Your task to perform on an android device: turn off javascript in the chrome app Image 0: 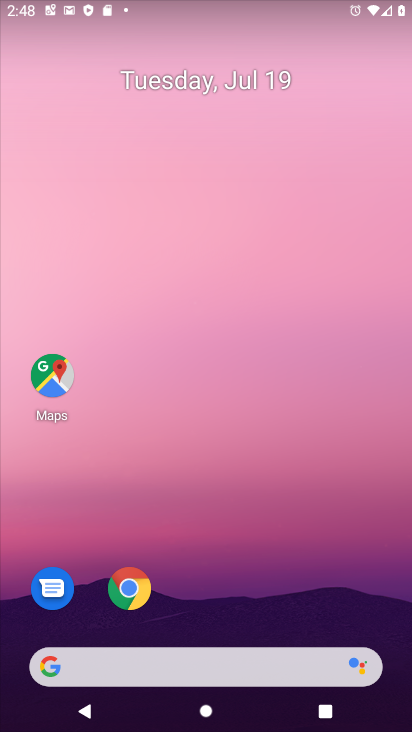
Step 0: drag from (390, 653) to (190, 39)
Your task to perform on an android device: turn off javascript in the chrome app Image 1: 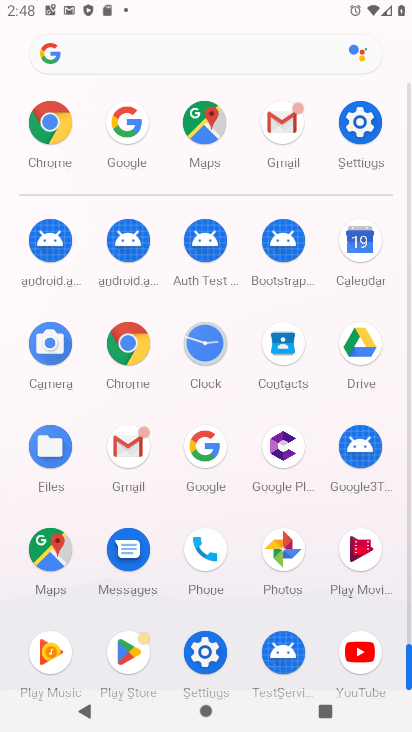
Step 1: click (46, 136)
Your task to perform on an android device: turn off javascript in the chrome app Image 2: 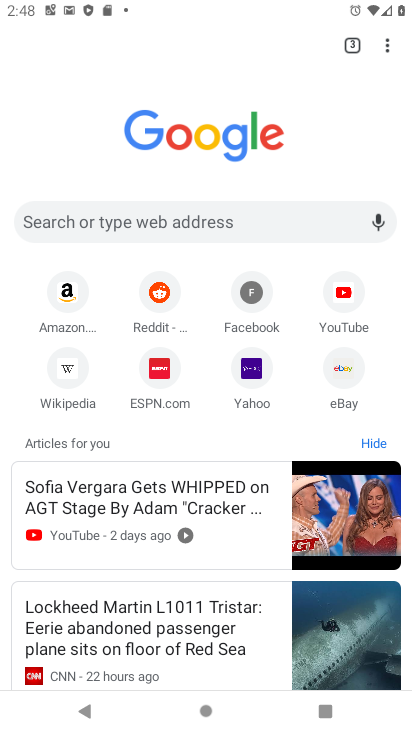
Step 2: click (390, 39)
Your task to perform on an android device: turn off javascript in the chrome app Image 3: 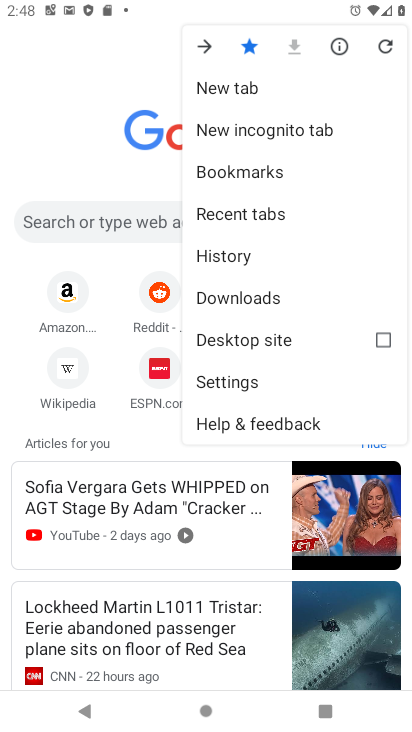
Step 3: click (231, 387)
Your task to perform on an android device: turn off javascript in the chrome app Image 4: 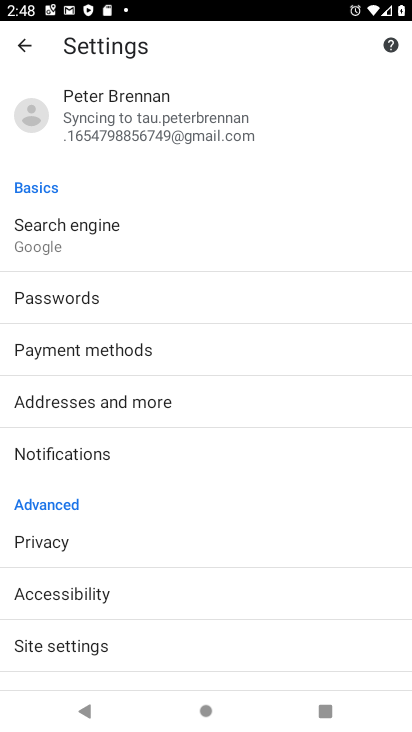
Step 4: click (128, 645)
Your task to perform on an android device: turn off javascript in the chrome app Image 5: 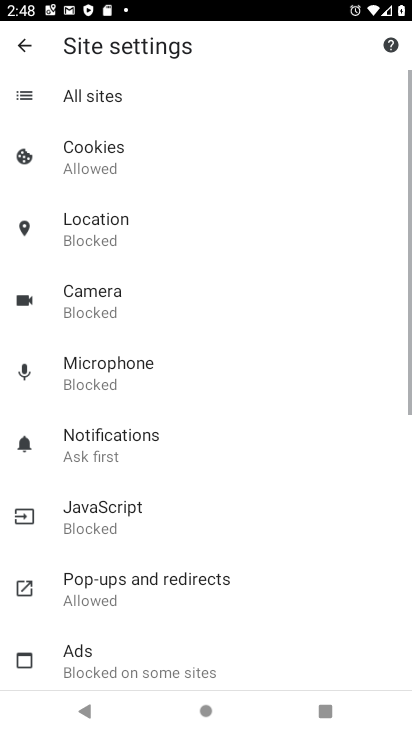
Step 5: click (132, 543)
Your task to perform on an android device: turn off javascript in the chrome app Image 6: 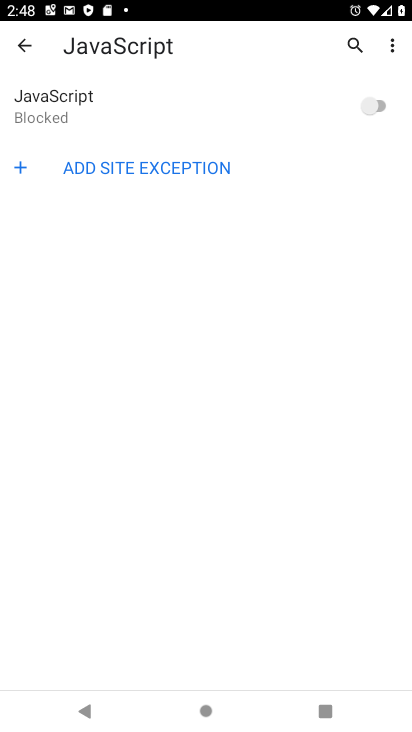
Step 6: task complete